Your task to perform on an android device: Set the phone to "Do not disturb". Image 0: 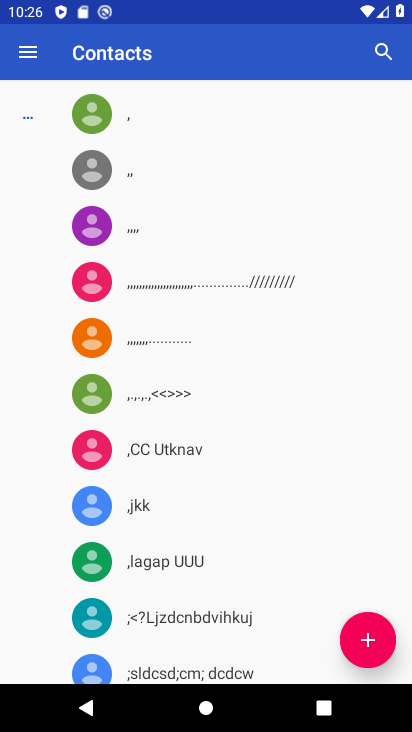
Step 0: press home button
Your task to perform on an android device: Set the phone to "Do not disturb". Image 1: 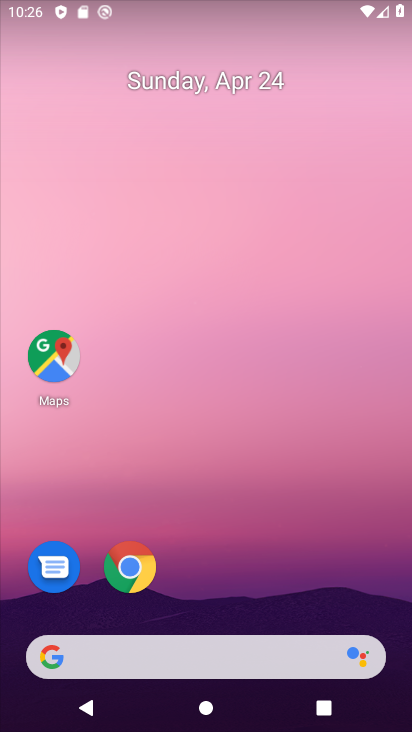
Step 1: drag from (92, 623) to (176, 119)
Your task to perform on an android device: Set the phone to "Do not disturb". Image 2: 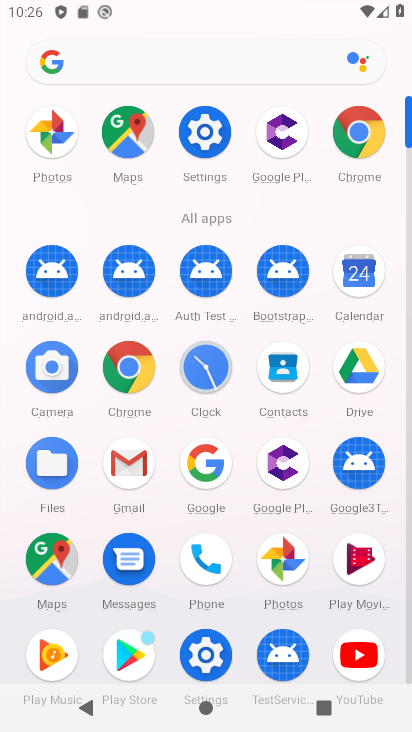
Step 2: drag from (243, 11) to (283, 457)
Your task to perform on an android device: Set the phone to "Do not disturb". Image 3: 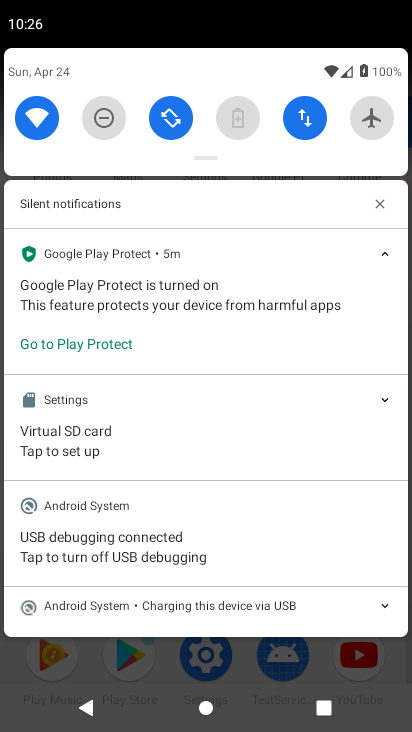
Step 3: click (101, 122)
Your task to perform on an android device: Set the phone to "Do not disturb". Image 4: 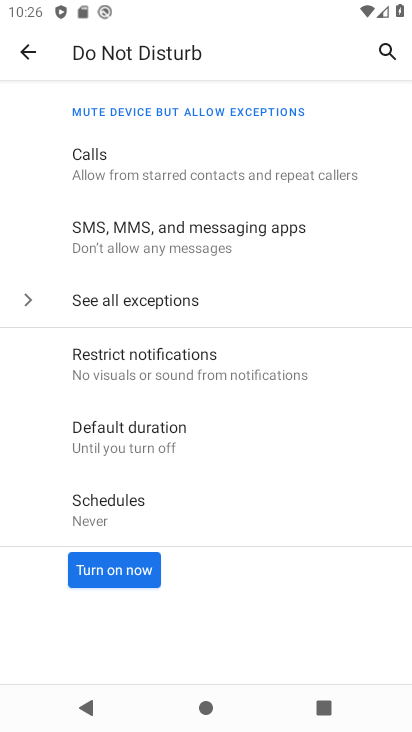
Step 4: click (126, 557)
Your task to perform on an android device: Set the phone to "Do not disturb". Image 5: 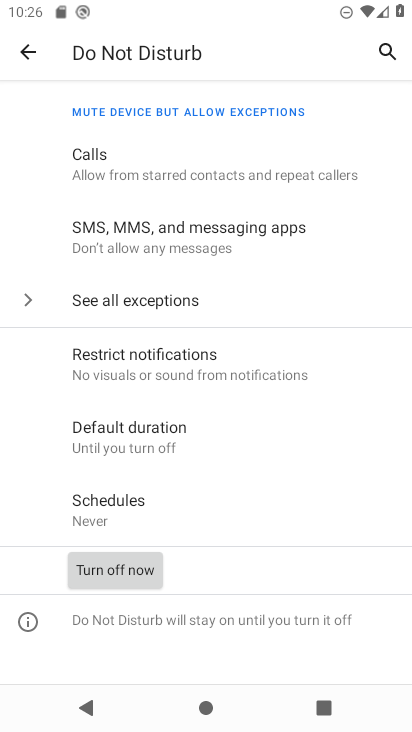
Step 5: task complete